Your task to perform on an android device: change the upload size in google photos Image 0: 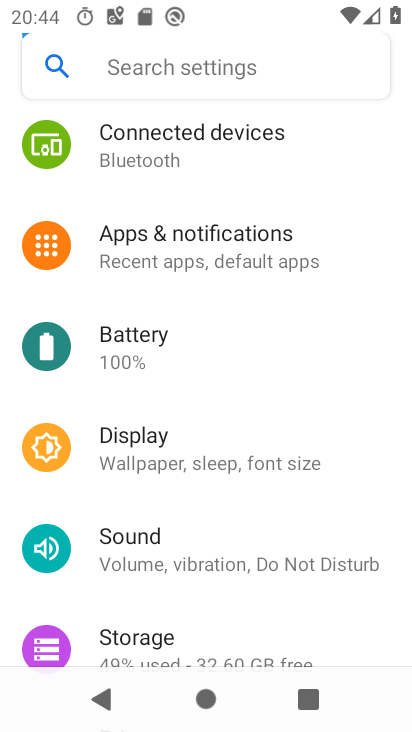
Step 0: press home button
Your task to perform on an android device: change the upload size in google photos Image 1: 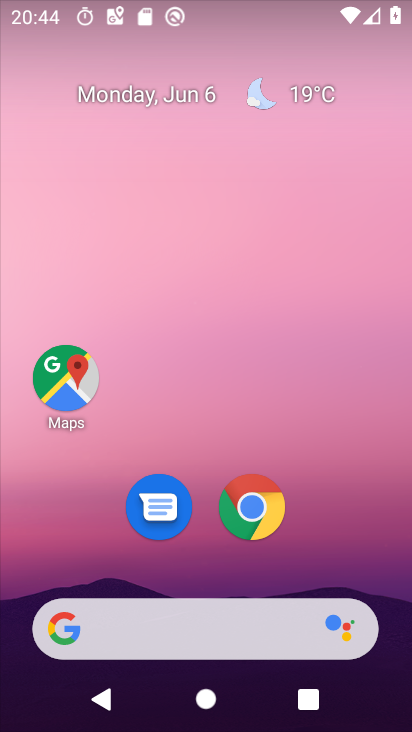
Step 1: drag from (336, 561) to (333, 63)
Your task to perform on an android device: change the upload size in google photos Image 2: 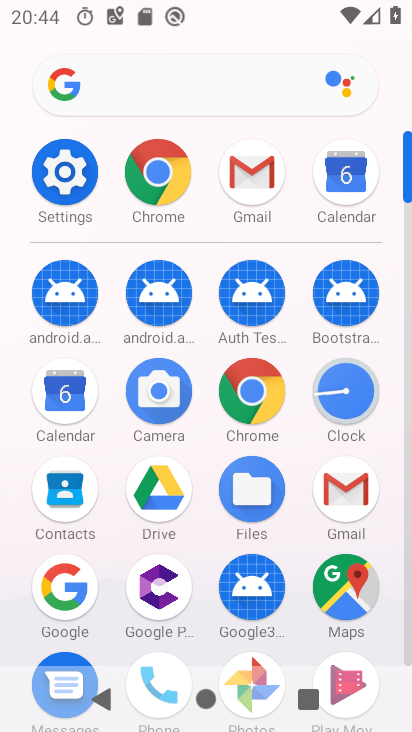
Step 2: click (404, 621)
Your task to perform on an android device: change the upload size in google photos Image 3: 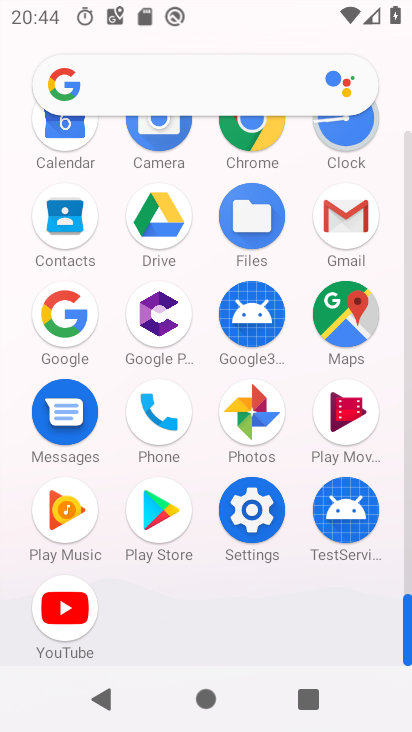
Step 3: click (248, 412)
Your task to perform on an android device: change the upload size in google photos Image 4: 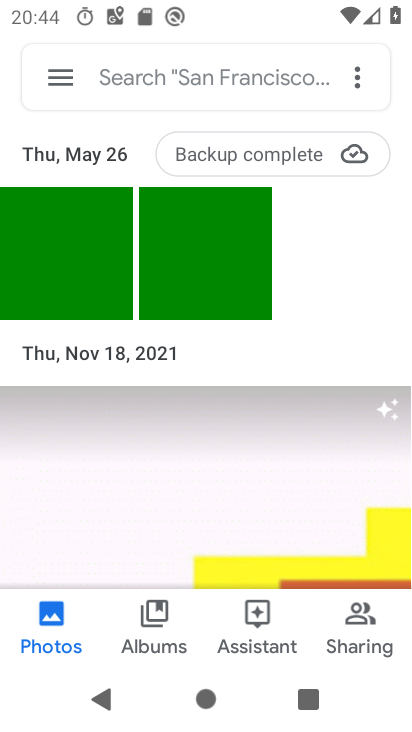
Step 4: click (73, 76)
Your task to perform on an android device: change the upload size in google photos Image 5: 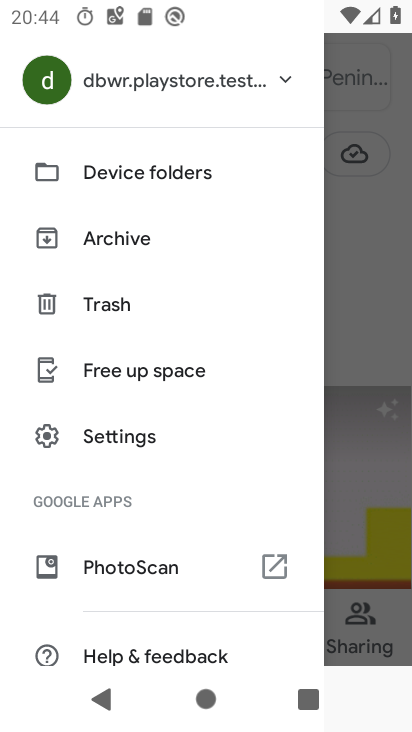
Step 5: click (113, 422)
Your task to perform on an android device: change the upload size in google photos Image 6: 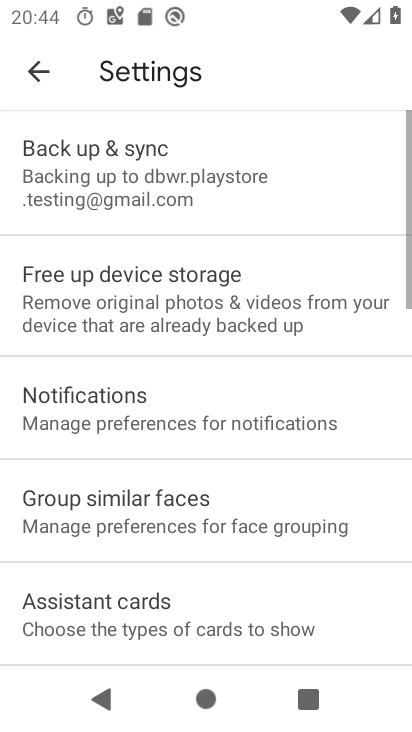
Step 6: click (174, 180)
Your task to perform on an android device: change the upload size in google photos Image 7: 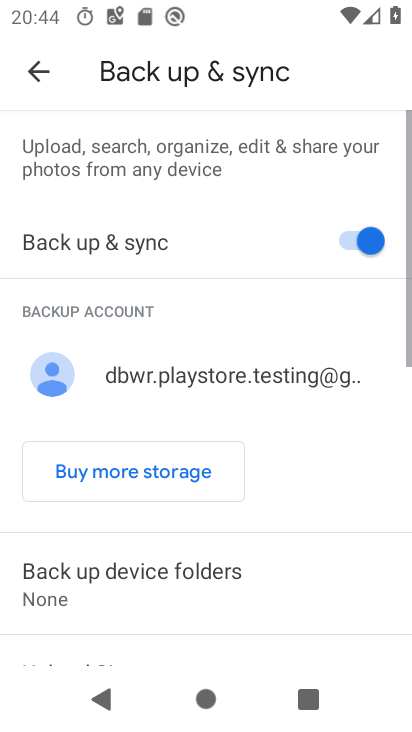
Step 7: drag from (214, 587) to (203, 230)
Your task to perform on an android device: change the upload size in google photos Image 8: 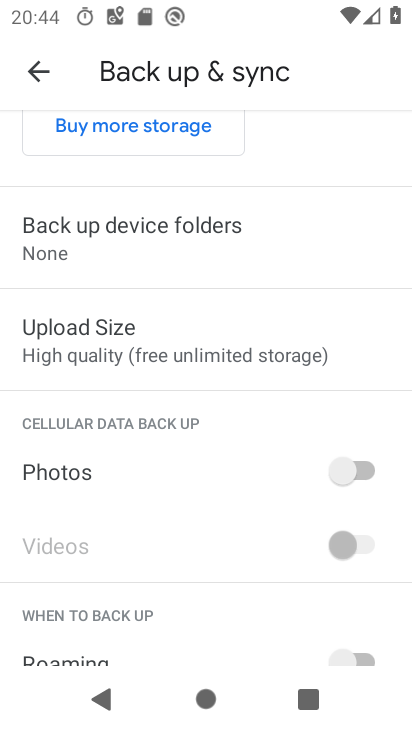
Step 8: click (119, 370)
Your task to perform on an android device: change the upload size in google photos Image 9: 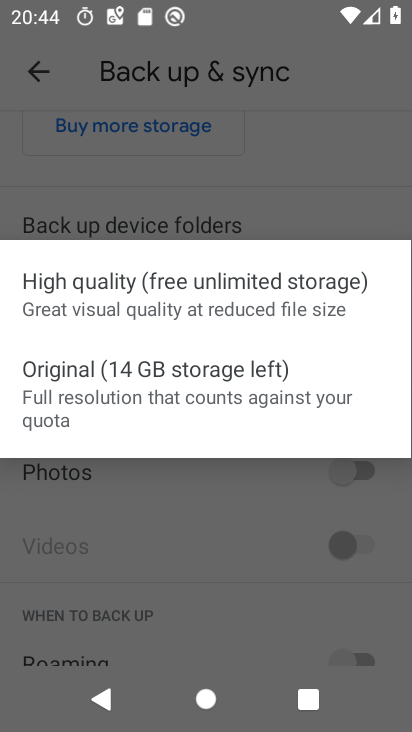
Step 9: click (123, 370)
Your task to perform on an android device: change the upload size in google photos Image 10: 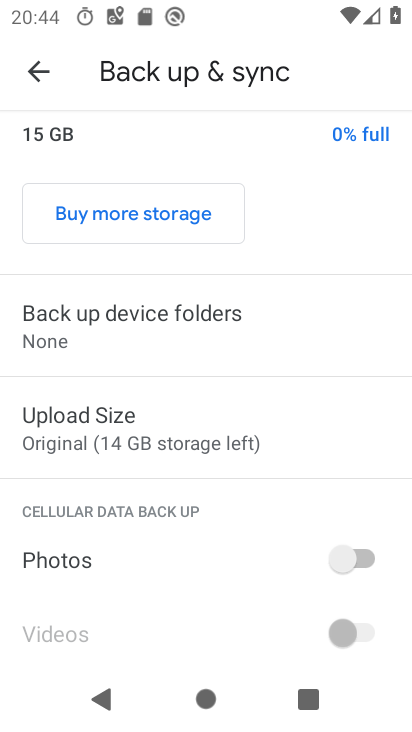
Step 10: task complete